Your task to perform on an android device: Go to internet settings Image 0: 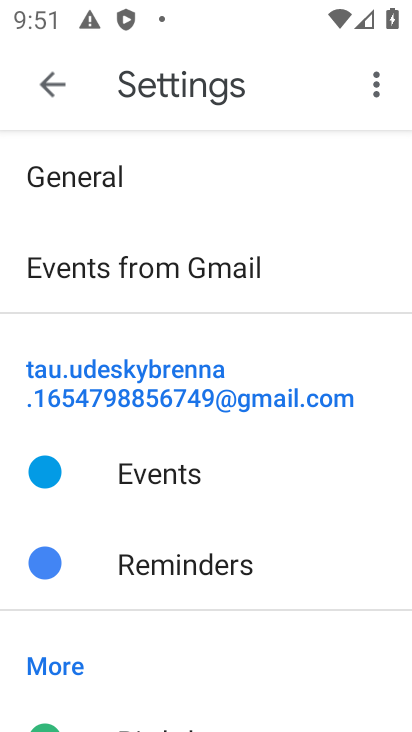
Step 0: task complete